Your task to perform on an android device: Open calendar and show me the second week of next month Image 0: 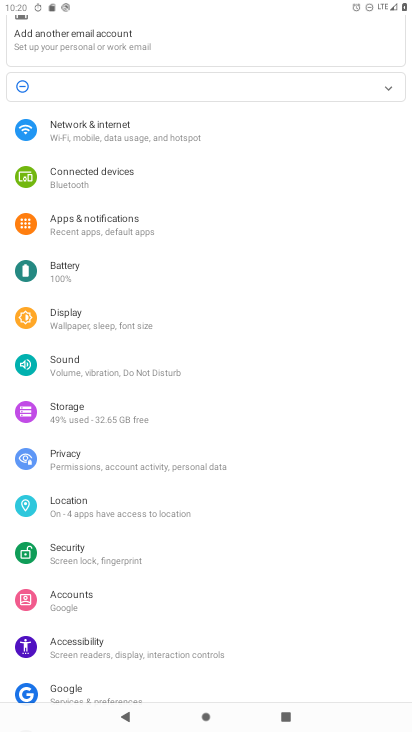
Step 0: press home button
Your task to perform on an android device: Open calendar and show me the second week of next month Image 1: 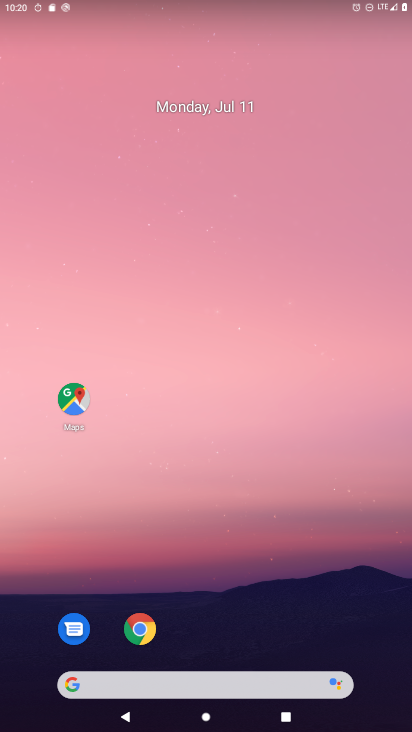
Step 1: click (222, 101)
Your task to perform on an android device: Open calendar and show me the second week of next month Image 2: 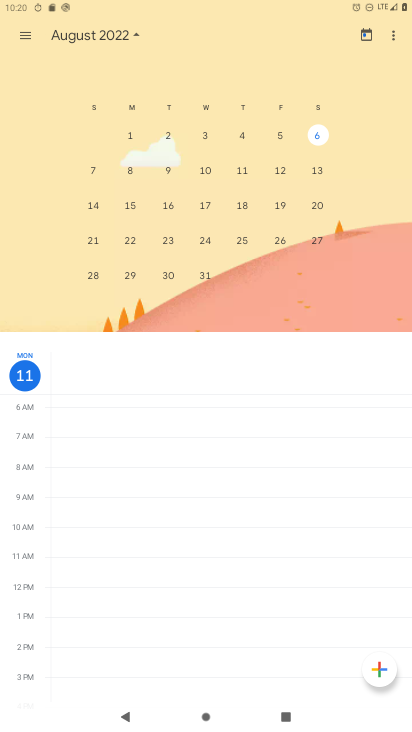
Step 2: click (278, 176)
Your task to perform on an android device: Open calendar and show me the second week of next month Image 3: 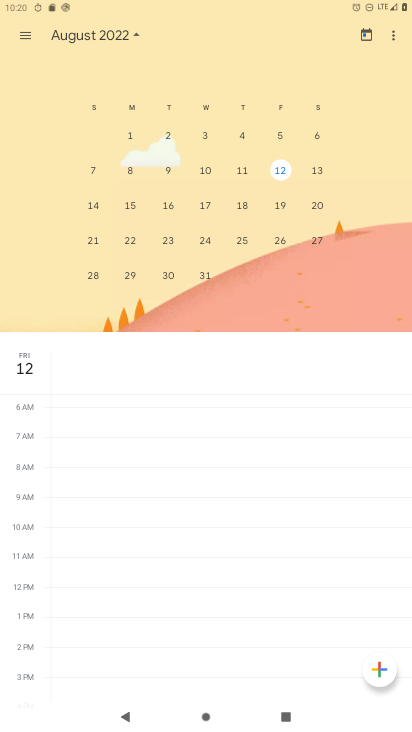
Step 3: task complete